Your task to perform on an android device: toggle wifi Image 0: 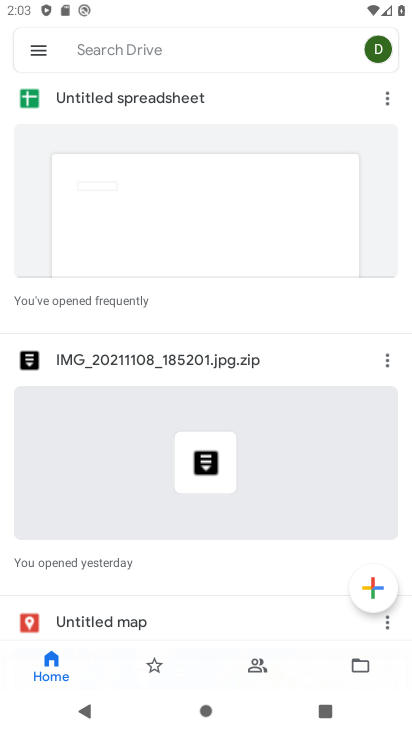
Step 0: press home button
Your task to perform on an android device: toggle wifi Image 1: 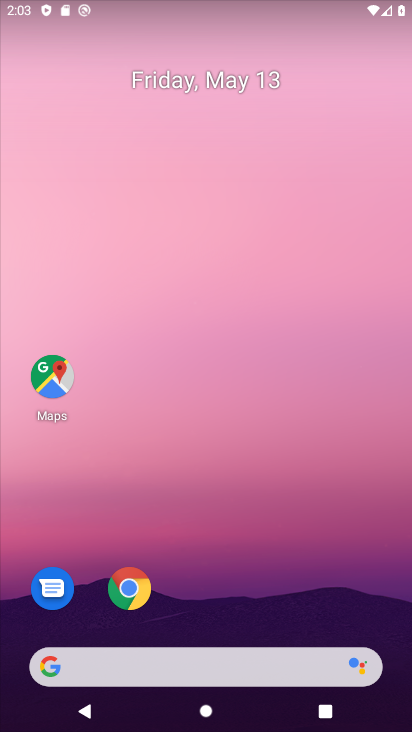
Step 1: drag from (388, 627) to (326, 218)
Your task to perform on an android device: toggle wifi Image 2: 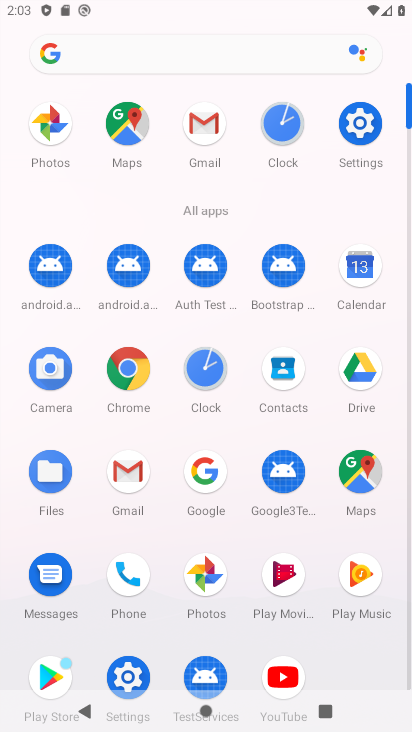
Step 2: click (411, 677)
Your task to perform on an android device: toggle wifi Image 3: 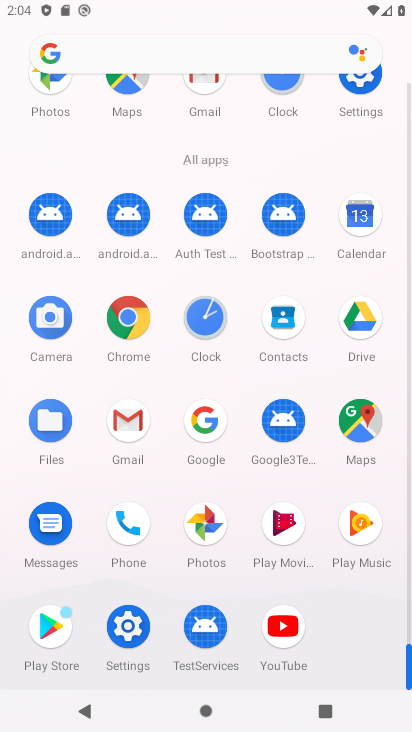
Step 3: click (129, 620)
Your task to perform on an android device: toggle wifi Image 4: 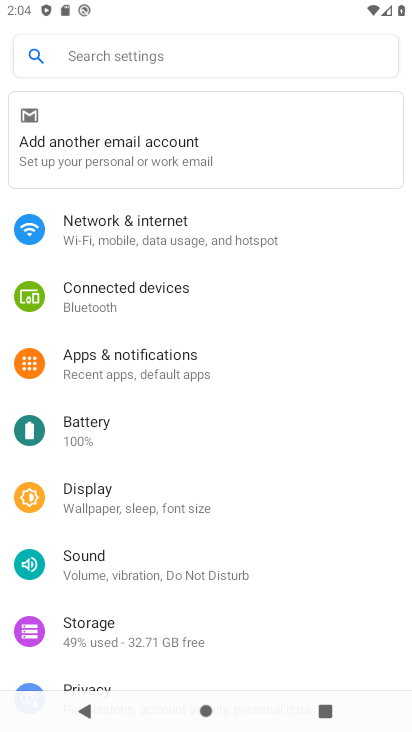
Step 4: click (111, 219)
Your task to perform on an android device: toggle wifi Image 5: 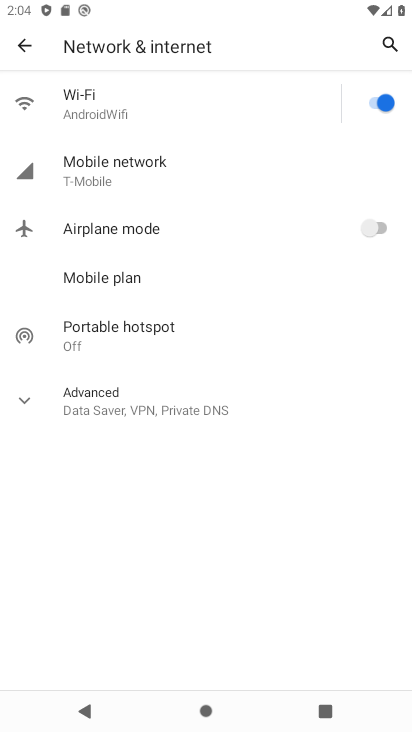
Step 5: click (373, 97)
Your task to perform on an android device: toggle wifi Image 6: 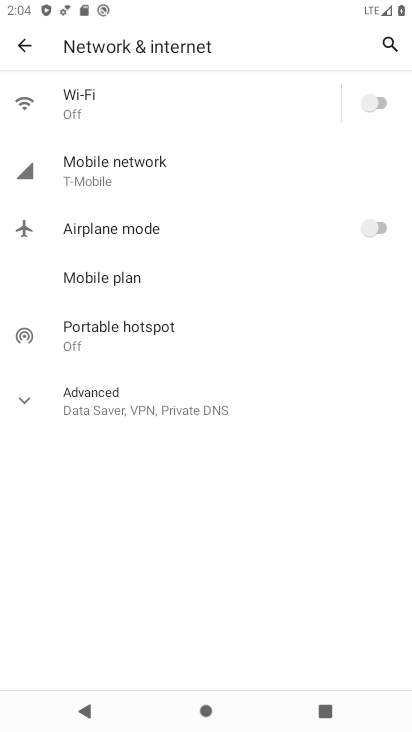
Step 6: task complete